Your task to perform on an android device: open a bookmark in the chrome app Image 0: 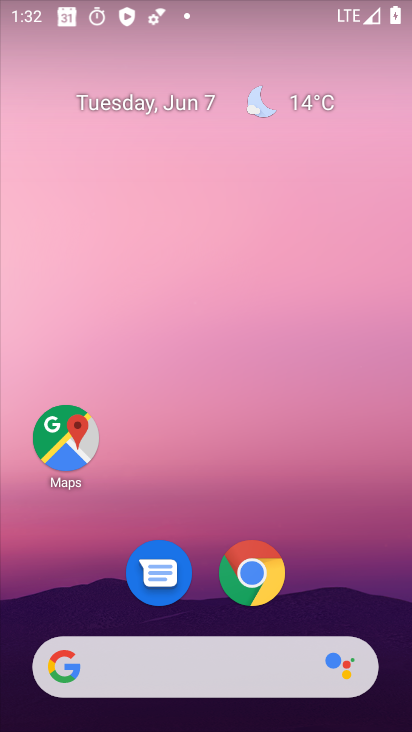
Step 0: click (248, 564)
Your task to perform on an android device: open a bookmark in the chrome app Image 1: 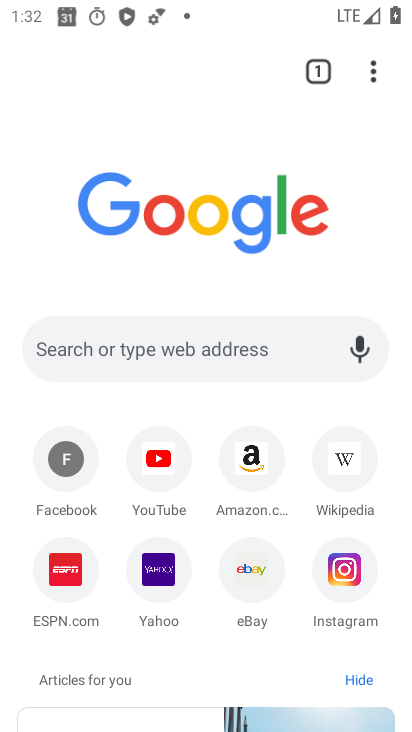
Step 1: click (369, 64)
Your task to perform on an android device: open a bookmark in the chrome app Image 2: 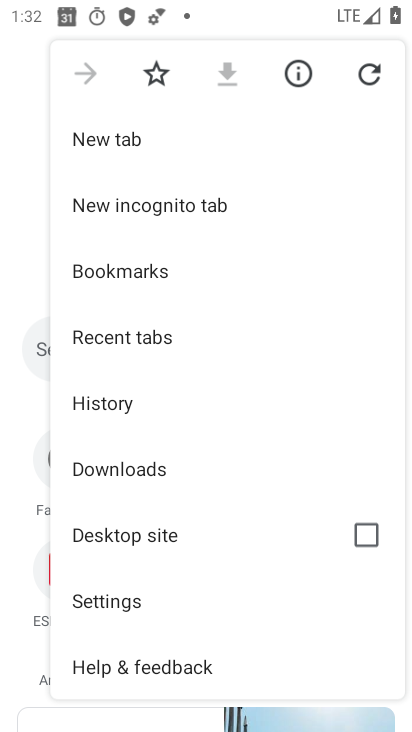
Step 2: click (187, 274)
Your task to perform on an android device: open a bookmark in the chrome app Image 3: 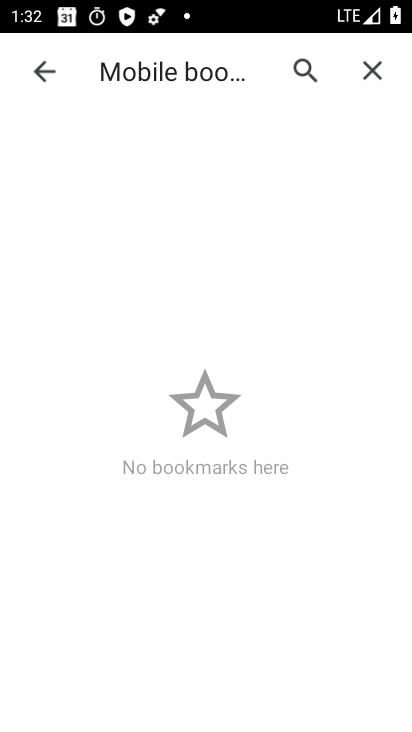
Step 3: task complete